Your task to perform on an android device: turn smart compose on in the gmail app Image 0: 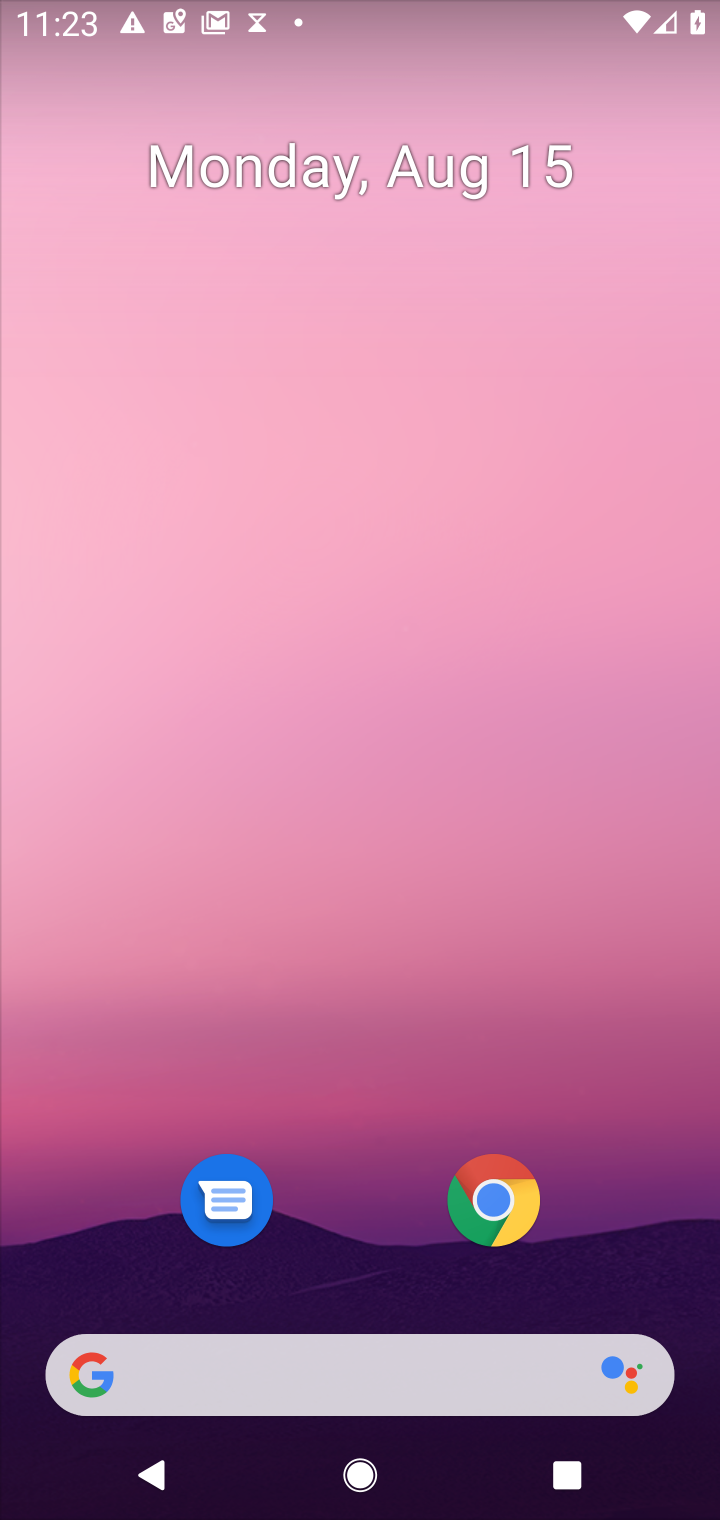
Step 0: drag from (367, 725) to (383, 242)
Your task to perform on an android device: turn smart compose on in the gmail app Image 1: 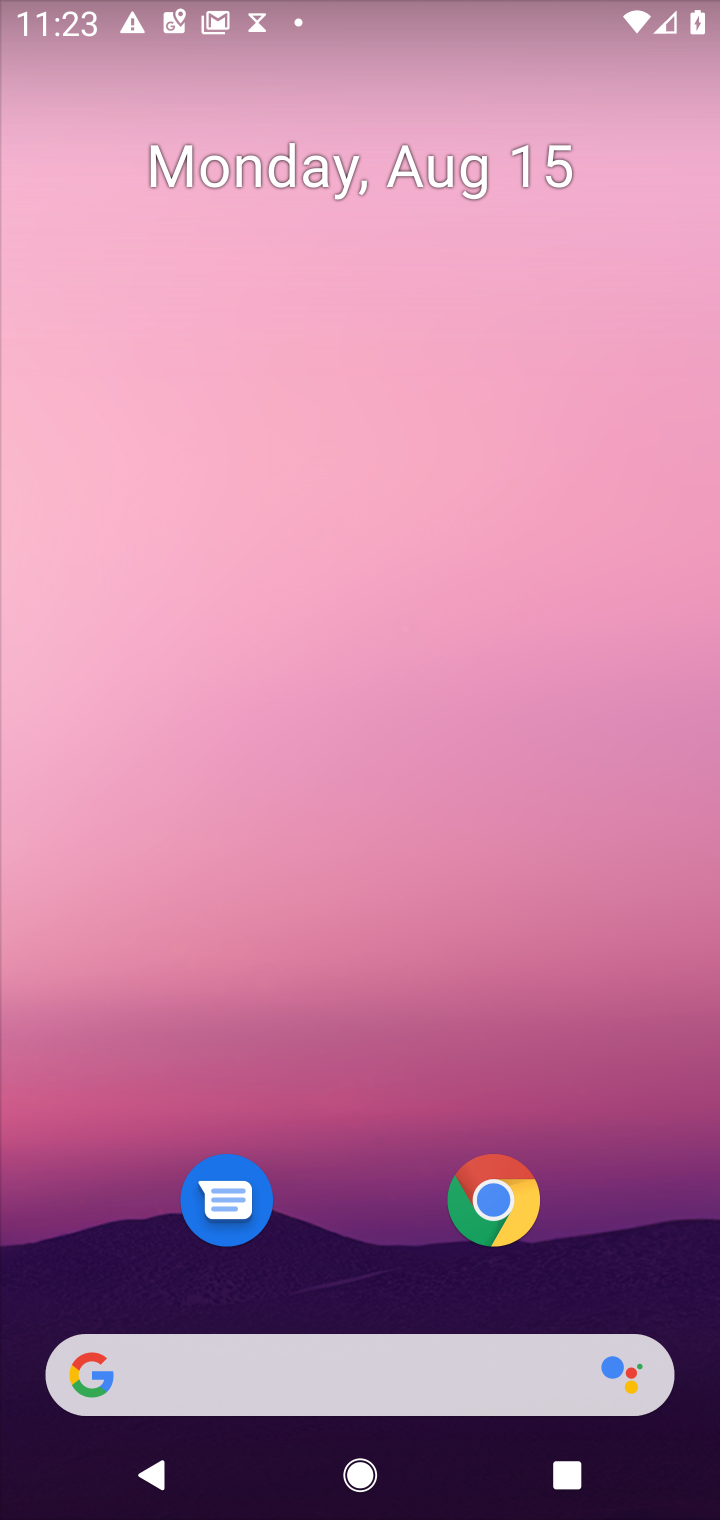
Step 1: drag from (387, 1260) to (361, 397)
Your task to perform on an android device: turn smart compose on in the gmail app Image 2: 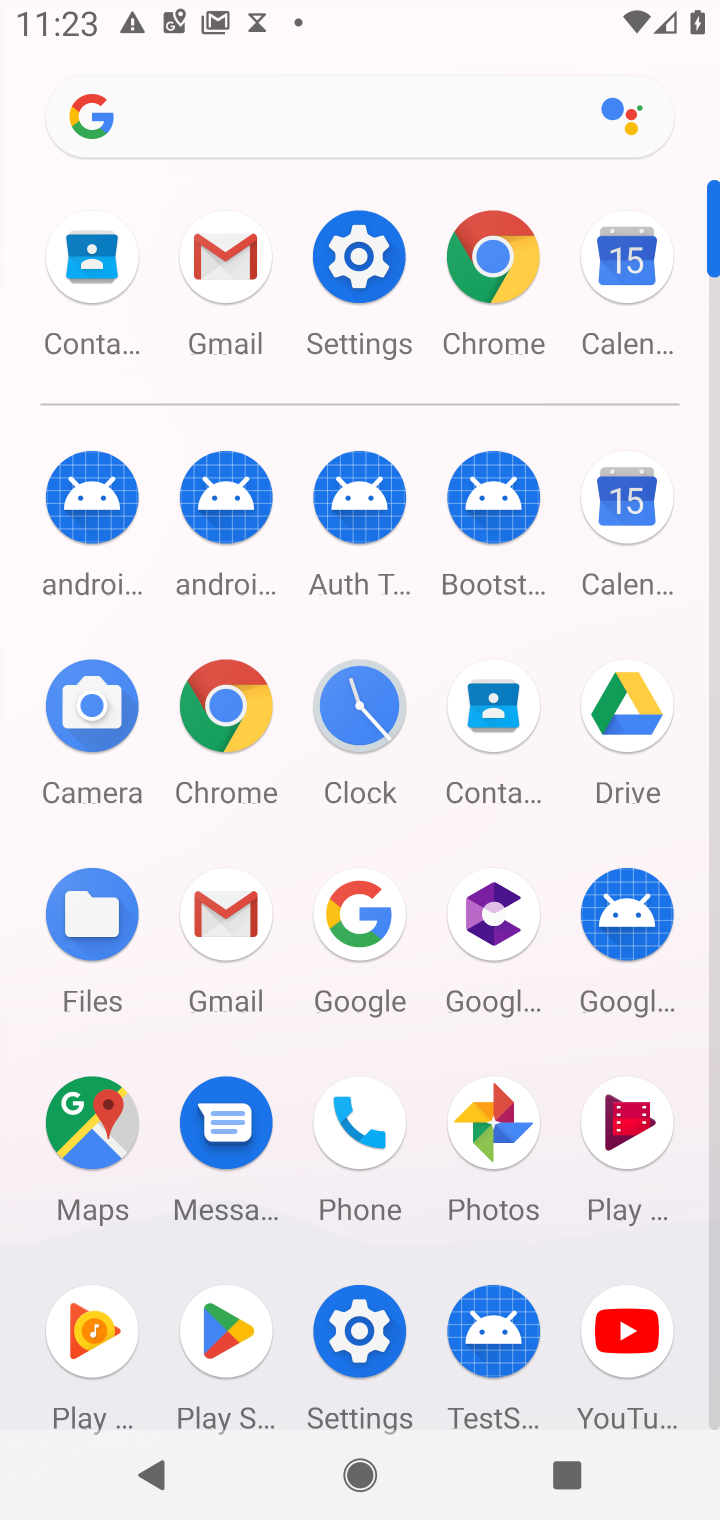
Step 2: click (227, 268)
Your task to perform on an android device: turn smart compose on in the gmail app Image 3: 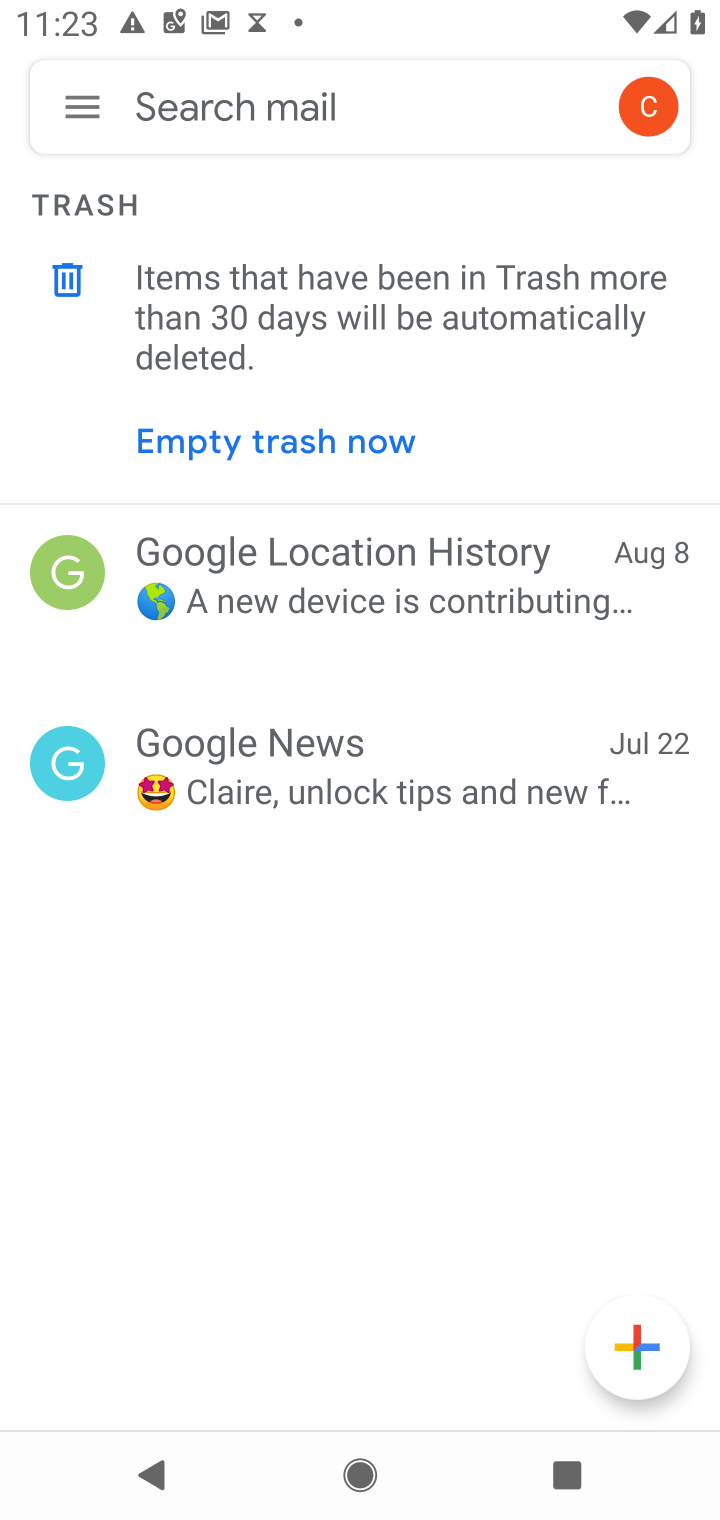
Step 3: click (95, 122)
Your task to perform on an android device: turn smart compose on in the gmail app Image 4: 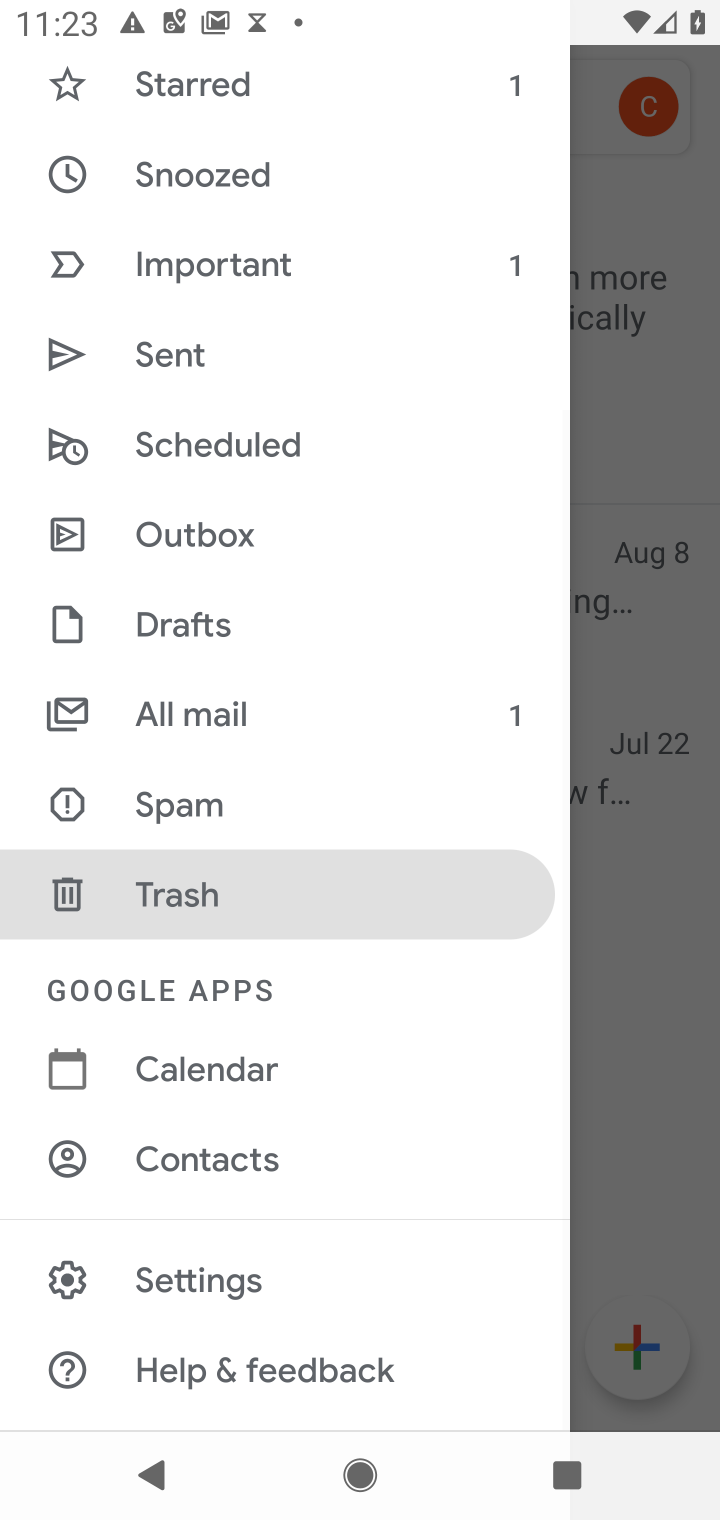
Step 4: click (228, 1275)
Your task to perform on an android device: turn smart compose on in the gmail app Image 5: 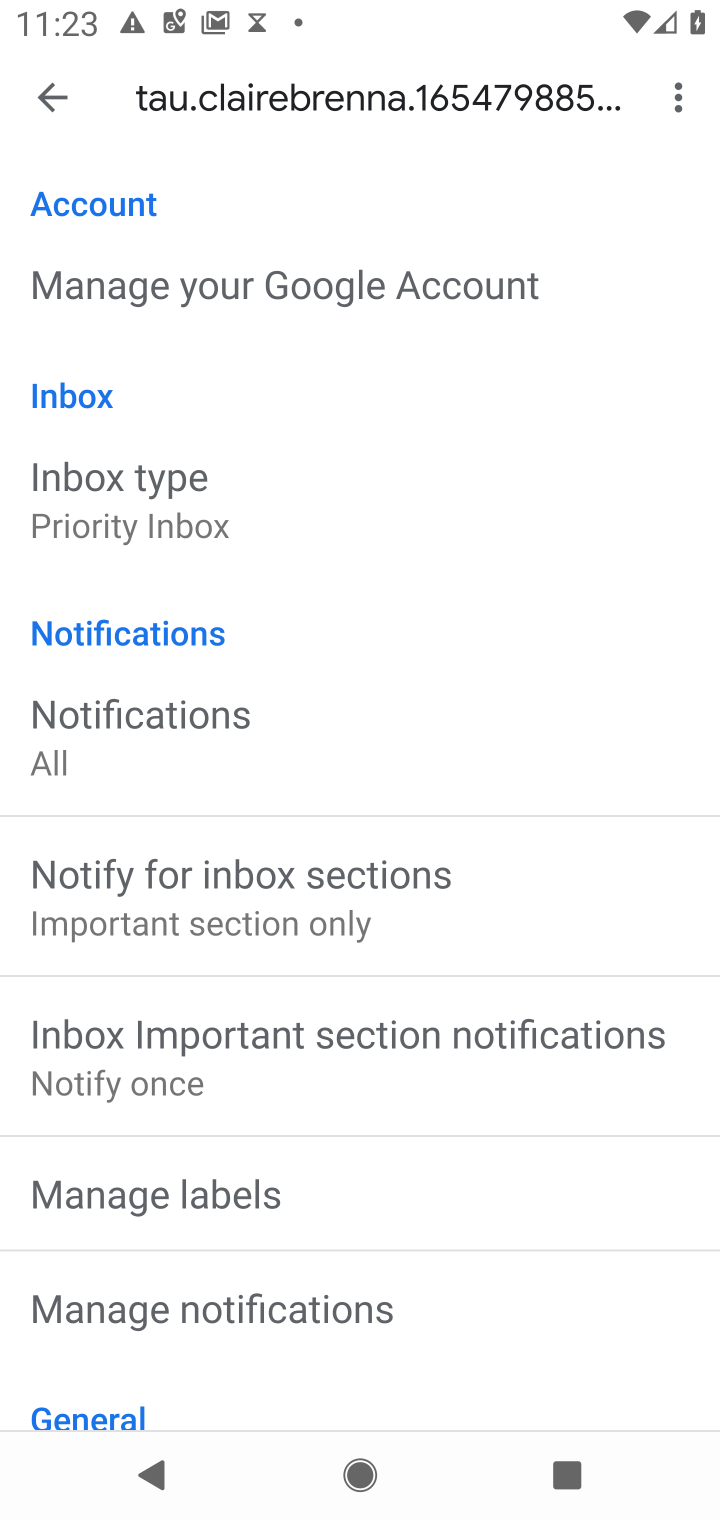
Step 5: task complete